Your task to perform on an android device: Open internet settings Image 0: 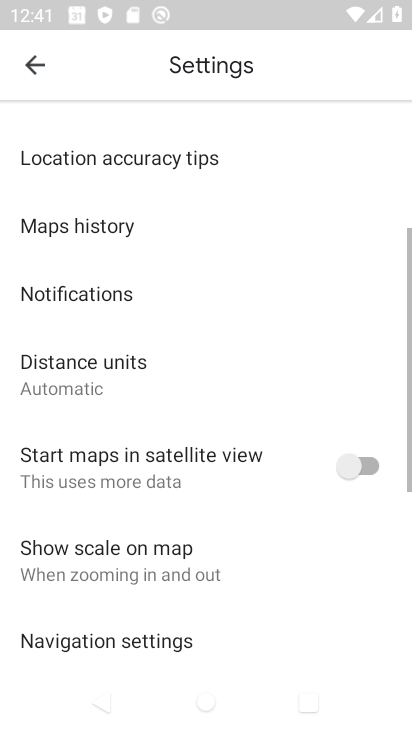
Step 0: press home button
Your task to perform on an android device: Open internet settings Image 1: 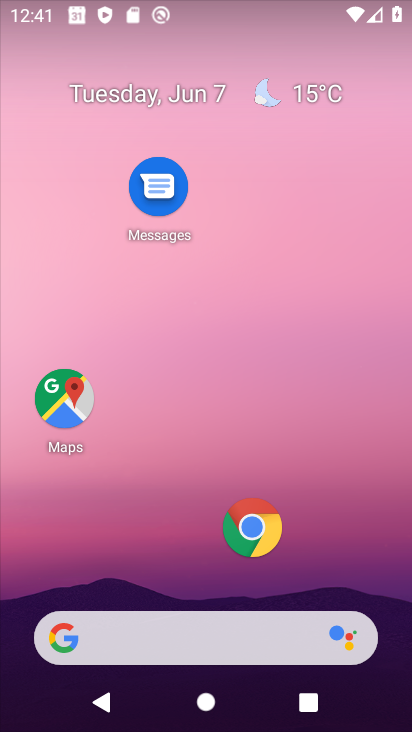
Step 1: drag from (149, 615) to (149, 405)
Your task to perform on an android device: Open internet settings Image 2: 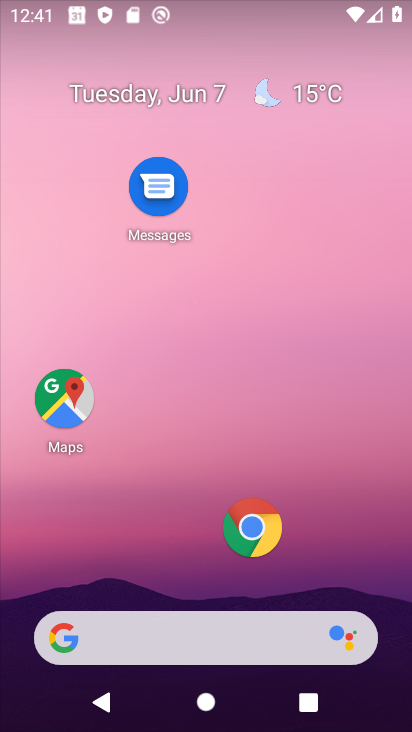
Step 2: drag from (196, 607) to (229, 267)
Your task to perform on an android device: Open internet settings Image 3: 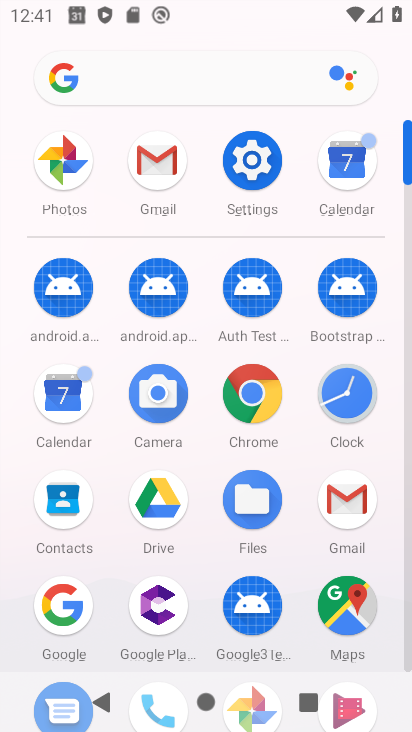
Step 3: click (257, 157)
Your task to perform on an android device: Open internet settings Image 4: 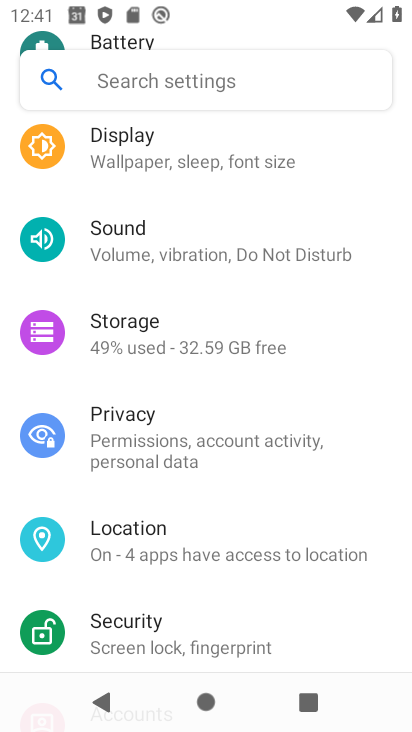
Step 4: drag from (253, 153) to (274, 547)
Your task to perform on an android device: Open internet settings Image 5: 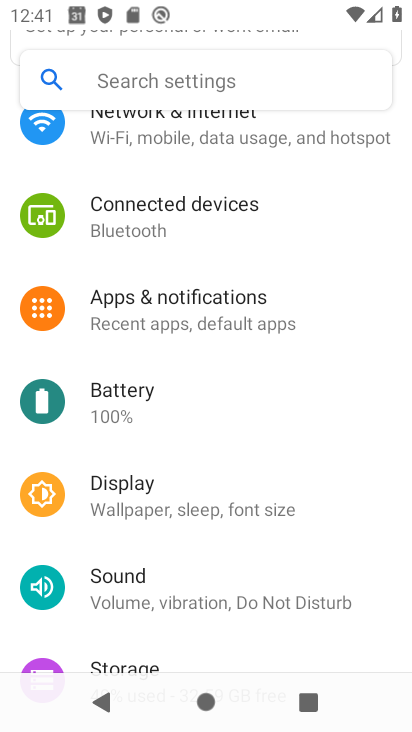
Step 5: click (166, 130)
Your task to perform on an android device: Open internet settings Image 6: 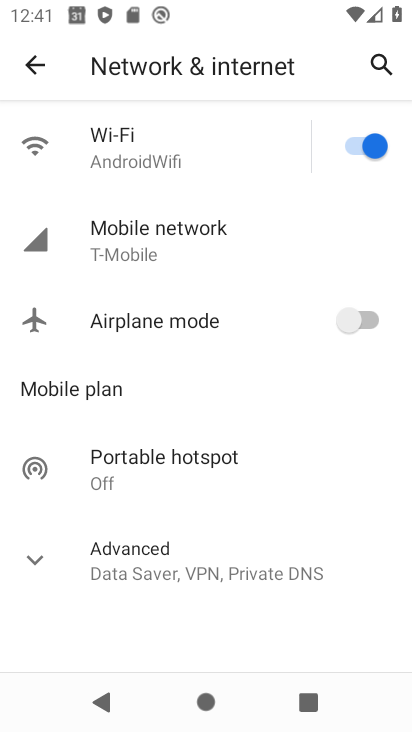
Step 6: click (168, 567)
Your task to perform on an android device: Open internet settings Image 7: 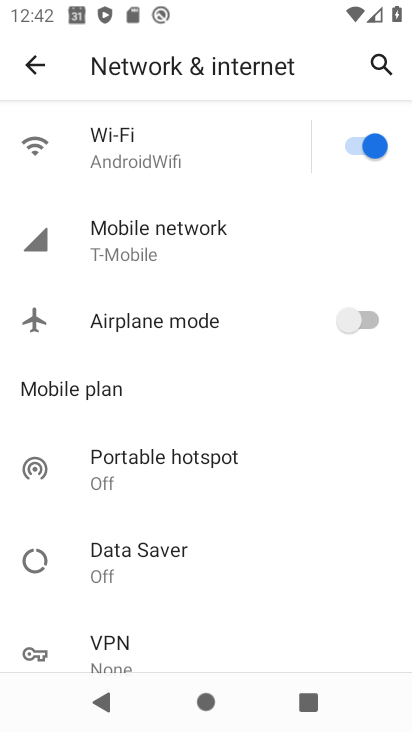
Step 7: task complete